Your task to perform on an android device: Go to CNN.com Image 0: 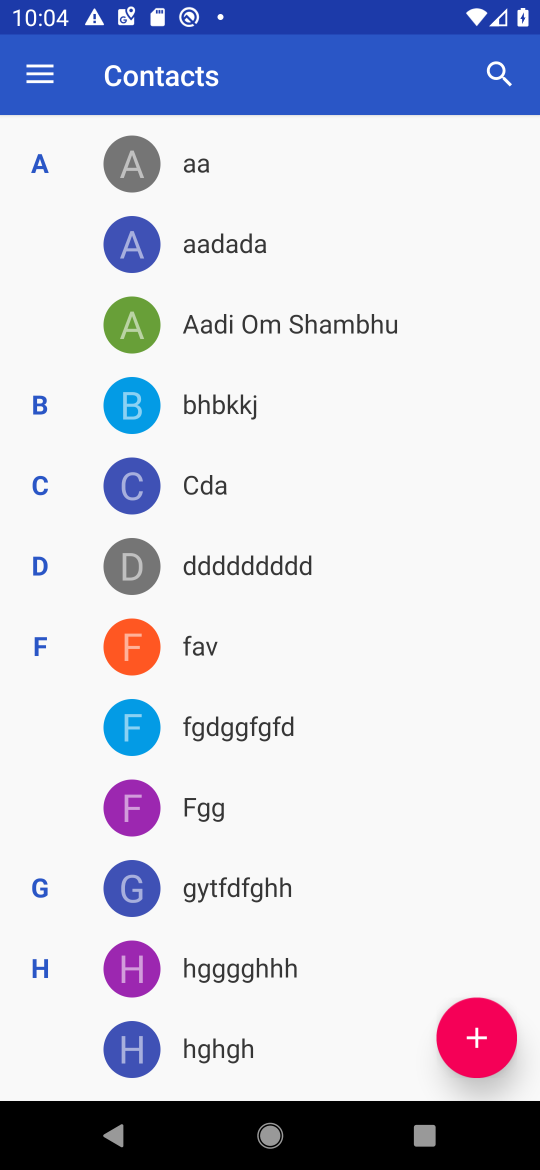
Step 0: press home button
Your task to perform on an android device: Go to CNN.com Image 1: 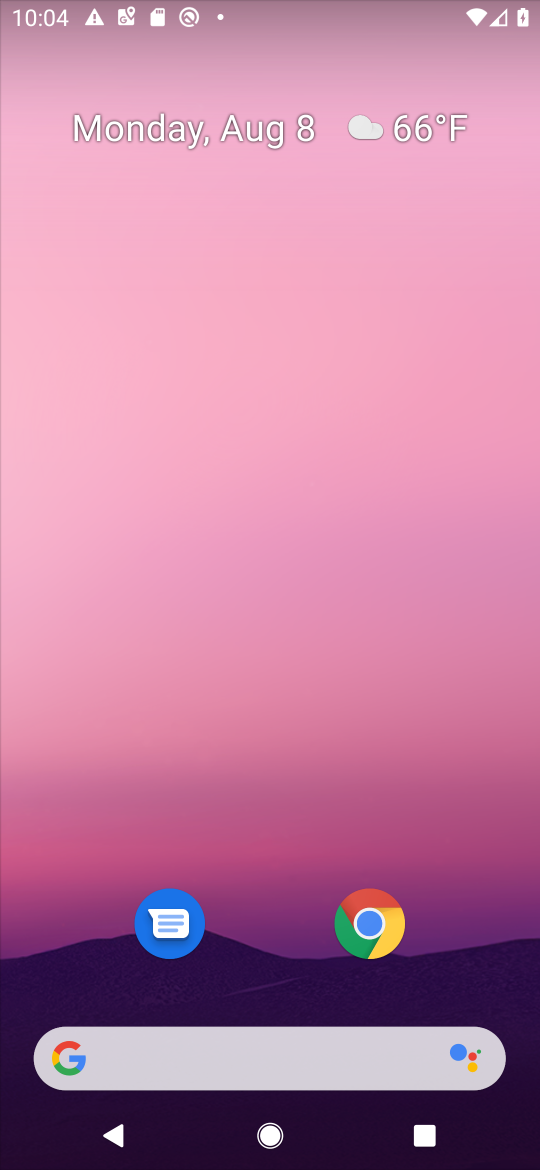
Step 1: click (110, 1058)
Your task to perform on an android device: Go to CNN.com Image 2: 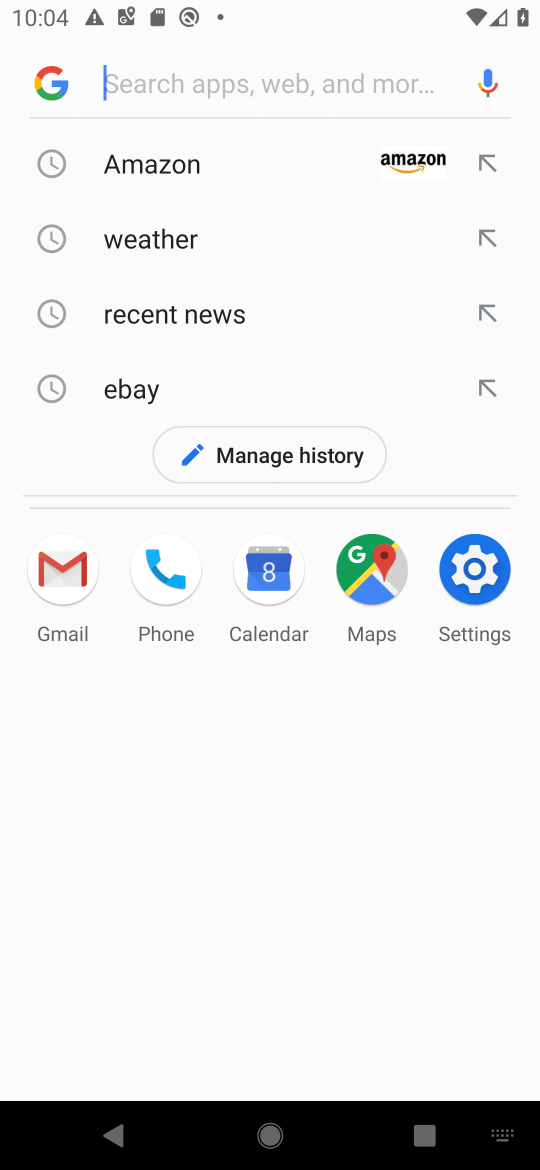
Step 2: type "CNN.com"
Your task to perform on an android device: Go to CNN.com Image 3: 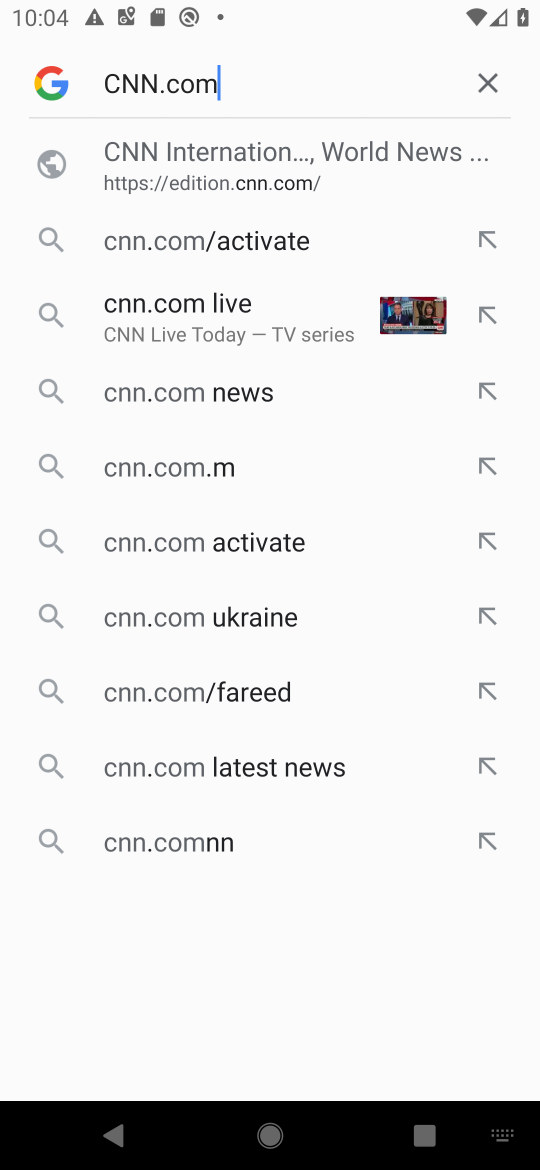
Step 3: click (221, 148)
Your task to perform on an android device: Go to CNN.com Image 4: 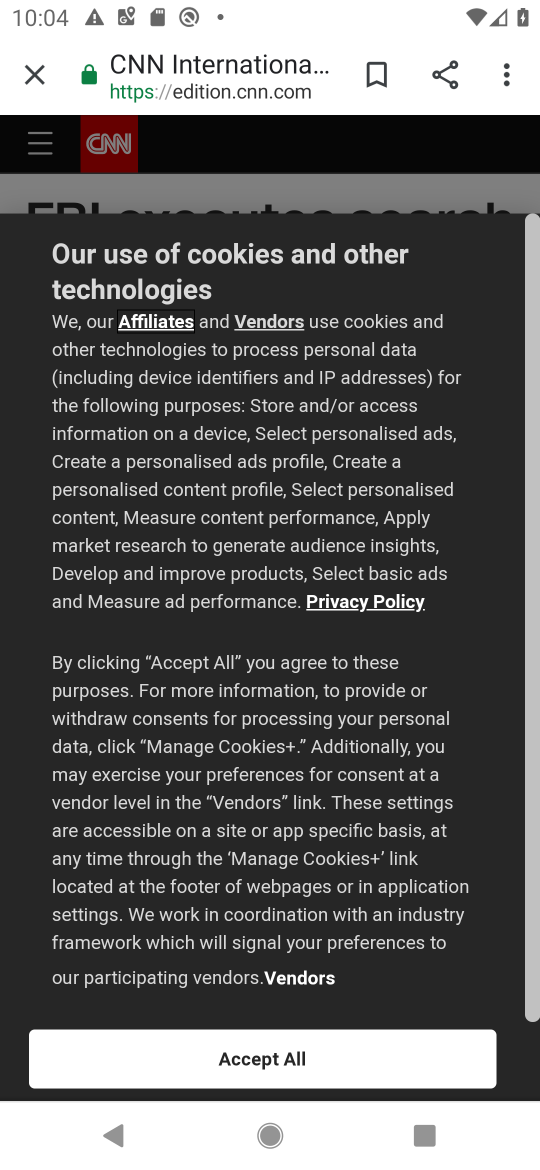
Step 4: task complete